Your task to perform on an android device: Open the phone app and click the voicemail tab. Image 0: 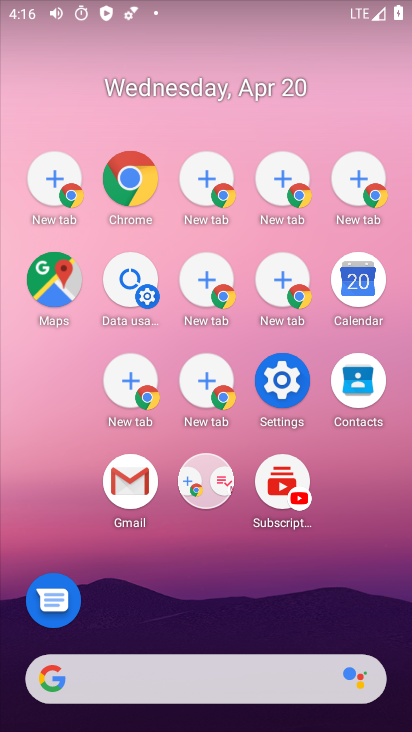
Step 0: drag from (103, 235) to (25, 53)
Your task to perform on an android device: Open the phone app and click the voicemail tab. Image 1: 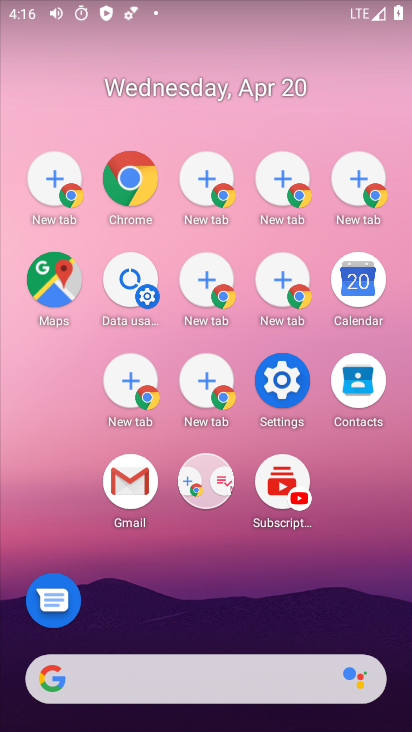
Step 1: drag from (238, 524) to (91, 104)
Your task to perform on an android device: Open the phone app and click the voicemail tab. Image 2: 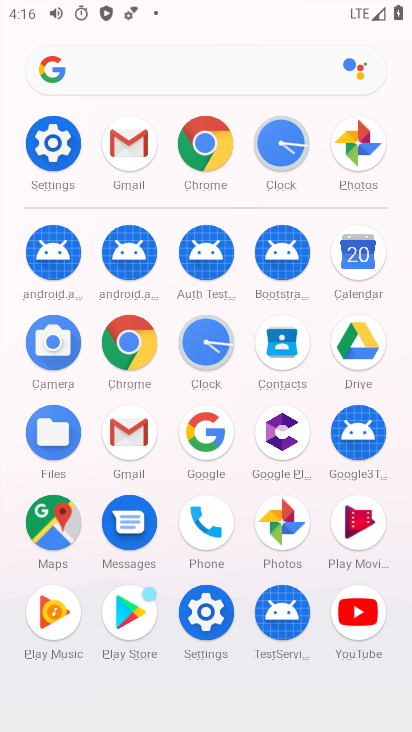
Step 2: drag from (105, 232) to (20, 36)
Your task to perform on an android device: Open the phone app and click the voicemail tab. Image 3: 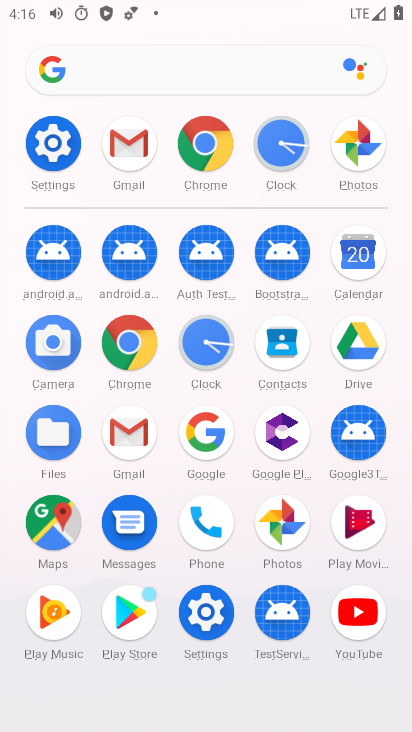
Step 3: click (201, 520)
Your task to perform on an android device: Open the phone app and click the voicemail tab. Image 4: 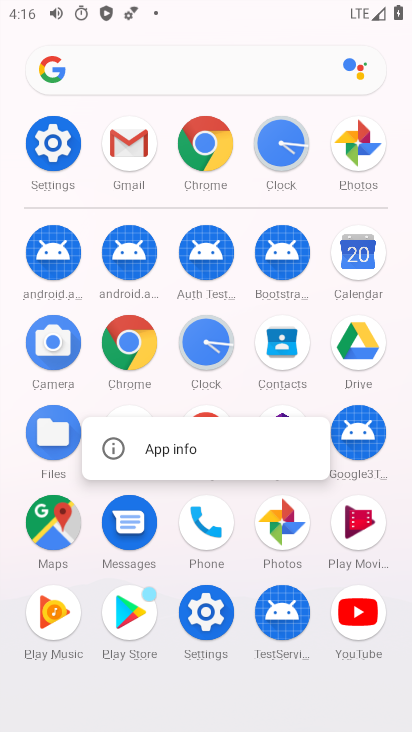
Step 4: click (201, 520)
Your task to perform on an android device: Open the phone app and click the voicemail tab. Image 5: 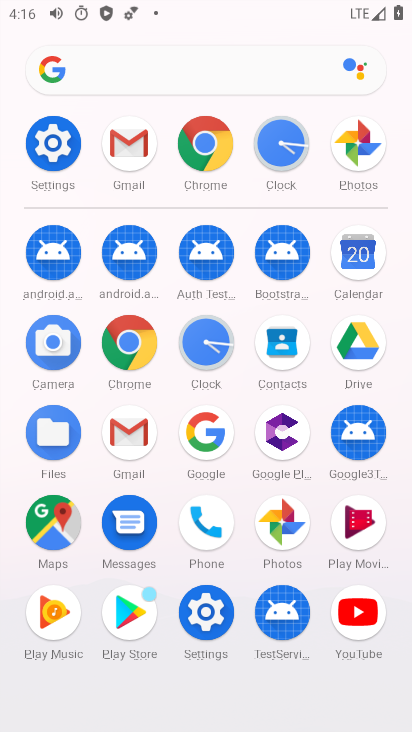
Step 5: click (201, 519)
Your task to perform on an android device: Open the phone app and click the voicemail tab. Image 6: 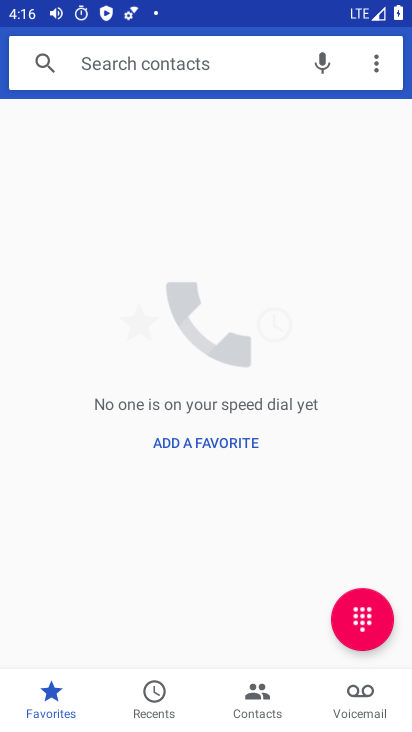
Step 6: click (340, 682)
Your task to perform on an android device: Open the phone app and click the voicemail tab. Image 7: 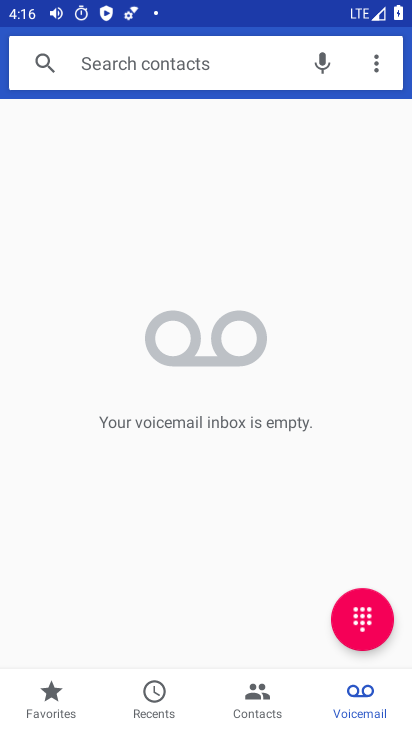
Step 7: task complete